Your task to perform on an android device: Open the calendar and show me this week's events? Image 0: 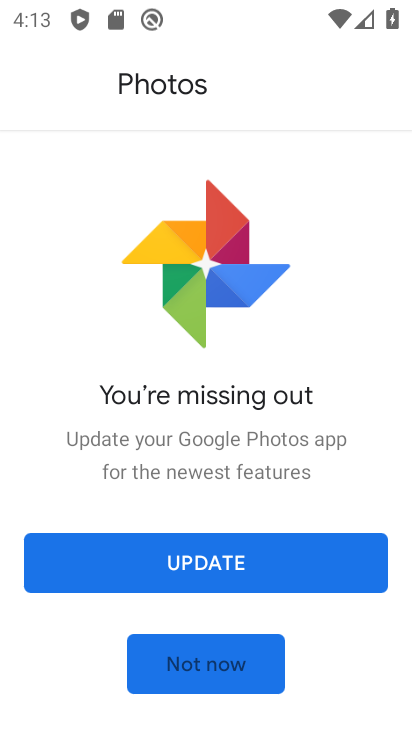
Step 0: click (206, 662)
Your task to perform on an android device: Open the calendar and show me this week's events? Image 1: 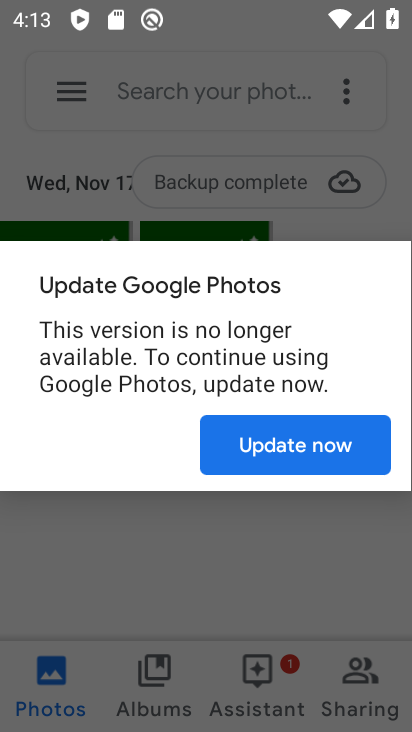
Step 1: press home button
Your task to perform on an android device: Open the calendar and show me this week's events? Image 2: 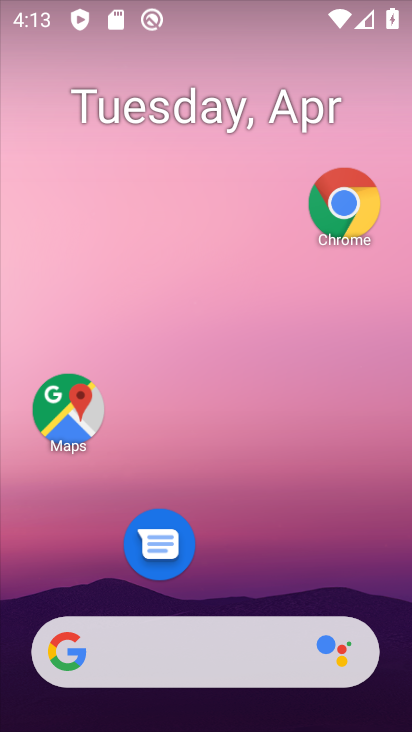
Step 2: drag from (224, 535) to (299, 1)
Your task to perform on an android device: Open the calendar and show me this week's events? Image 3: 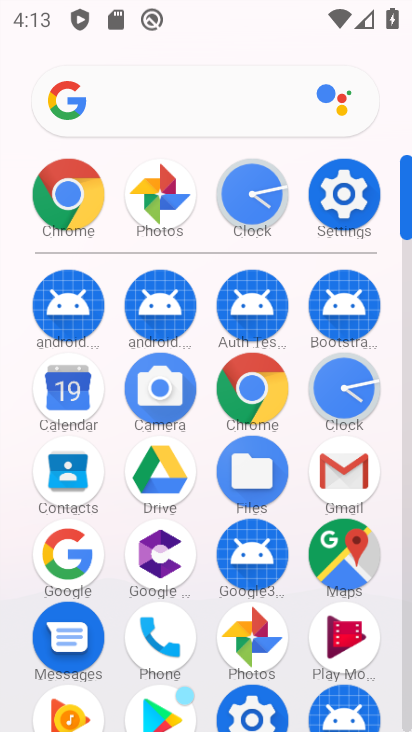
Step 3: click (69, 391)
Your task to perform on an android device: Open the calendar and show me this week's events? Image 4: 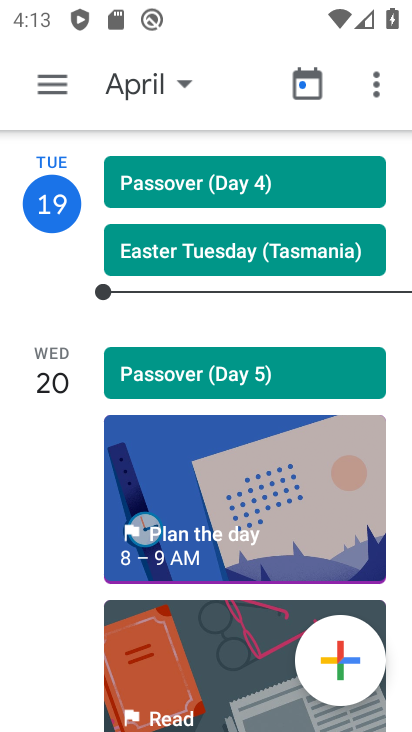
Step 4: click (60, 88)
Your task to perform on an android device: Open the calendar and show me this week's events? Image 5: 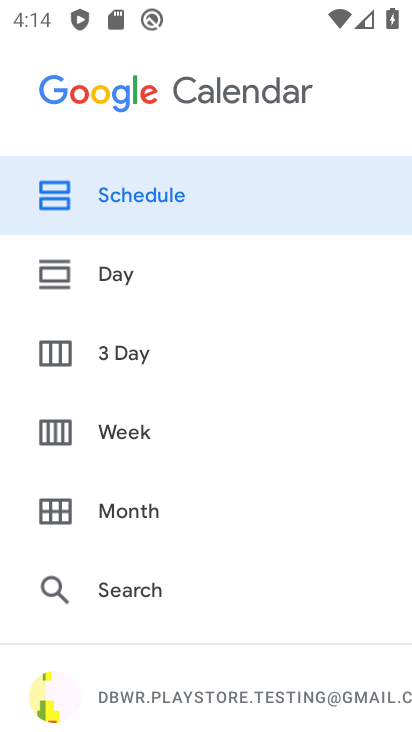
Step 5: drag from (131, 518) to (290, 22)
Your task to perform on an android device: Open the calendar and show me this week's events? Image 6: 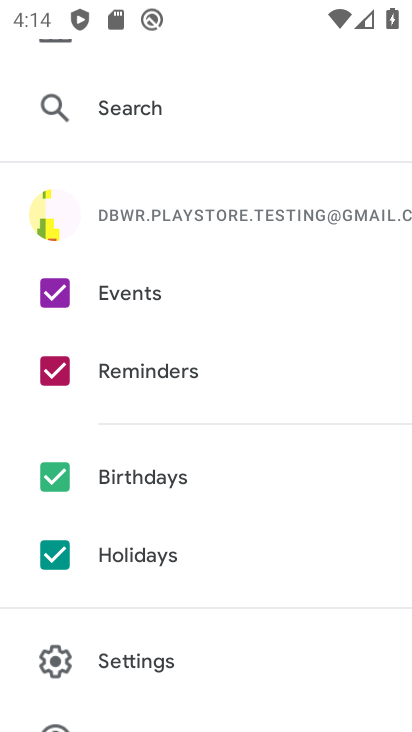
Step 6: drag from (166, 585) to (249, 96)
Your task to perform on an android device: Open the calendar and show me this week's events? Image 7: 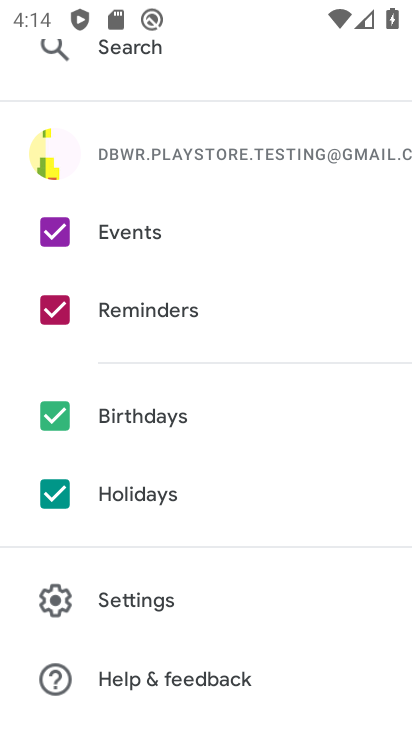
Step 7: click (65, 308)
Your task to perform on an android device: Open the calendar and show me this week's events? Image 8: 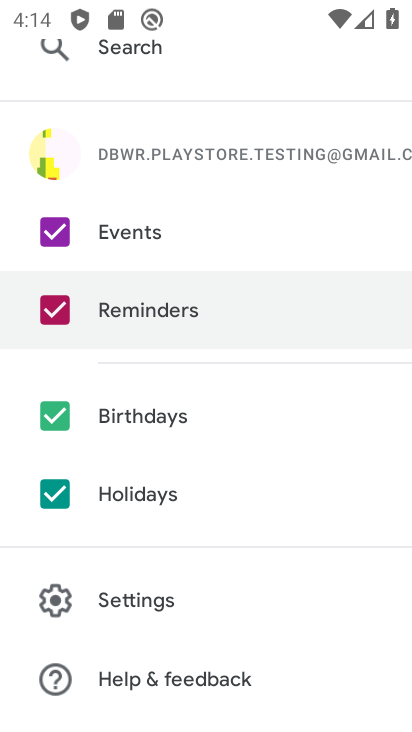
Step 8: click (48, 422)
Your task to perform on an android device: Open the calendar and show me this week's events? Image 9: 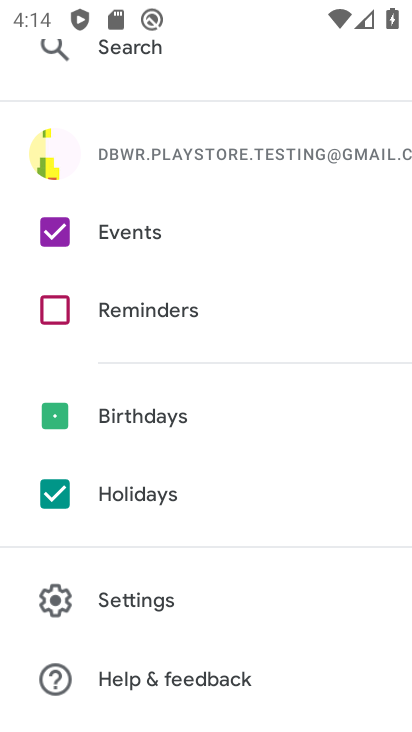
Step 9: click (54, 499)
Your task to perform on an android device: Open the calendar and show me this week's events? Image 10: 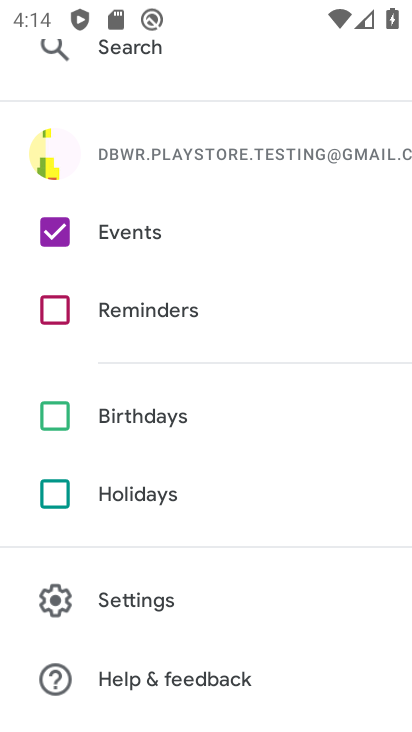
Step 10: drag from (312, 170) to (278, 626)
Your task to perform on an android device: Open the calendar and show me this week's events? Image 11: 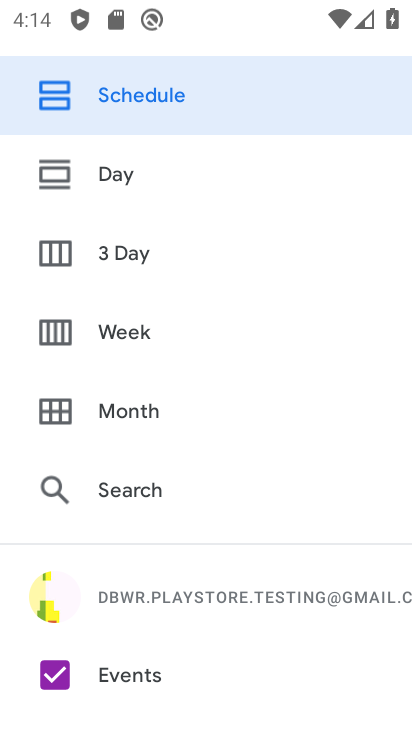
Step 11: click (145, 334)
Your task to perform on an android device: Open the calendar and show me this week's events? Image 12: 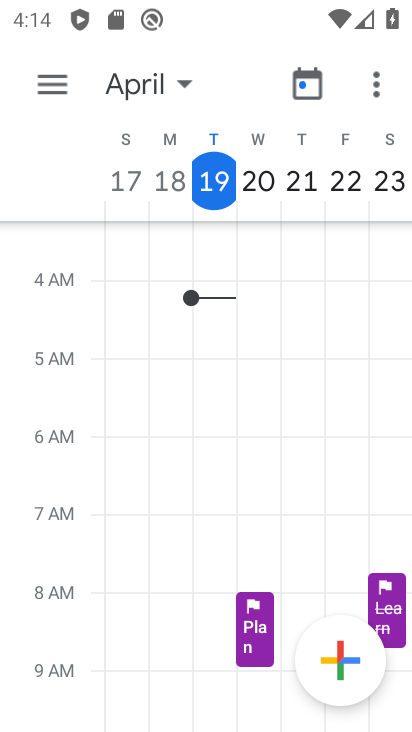
Step 12: task complete